Your task to perform on an android device: Open calendar and show me the second week of next month Image 0: 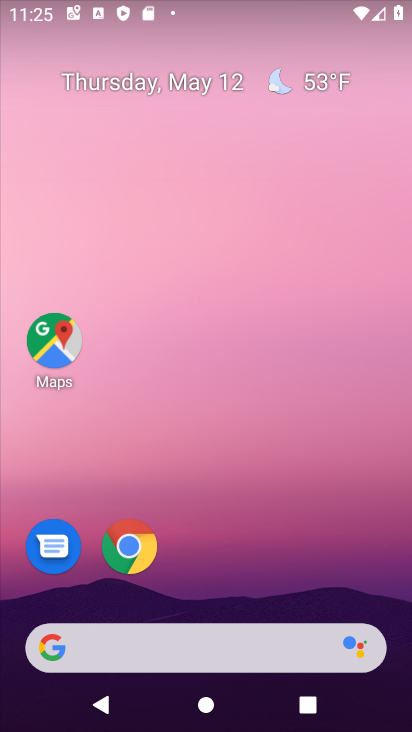
Step 0: drag from (288, 675) to (321, 165)
Your task to perform on an android device: Open calendar and show me the second week of next month Image 1: 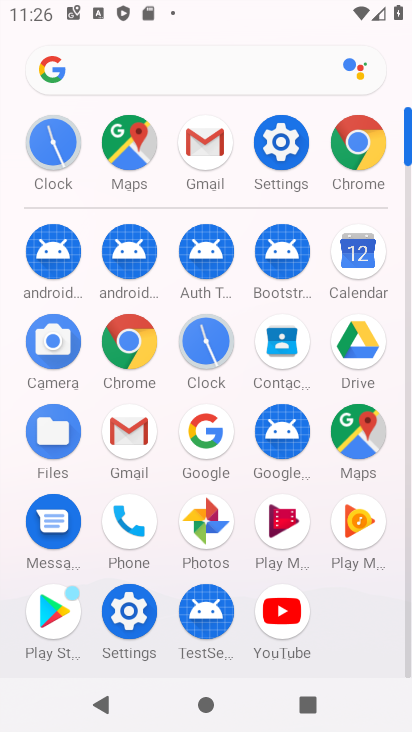
Step 1: click (352, 269)
Your task to perform on an android device: Open calendar and show me the second week of next month Image 2: 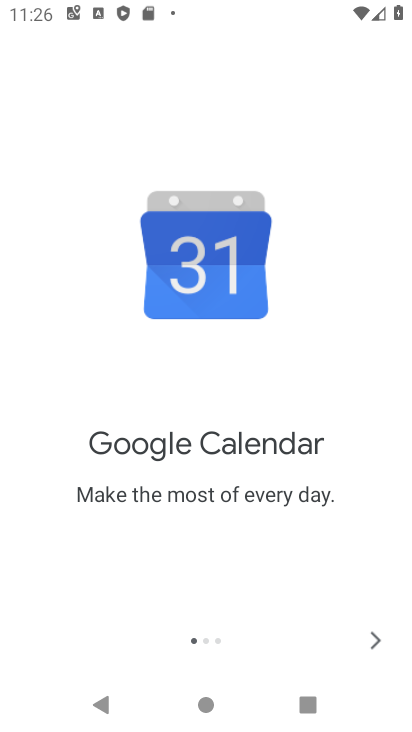
Step 2: click (362, 640)
Your task to perform on an android device: Open calendar and show me the second week of next month Image 3: 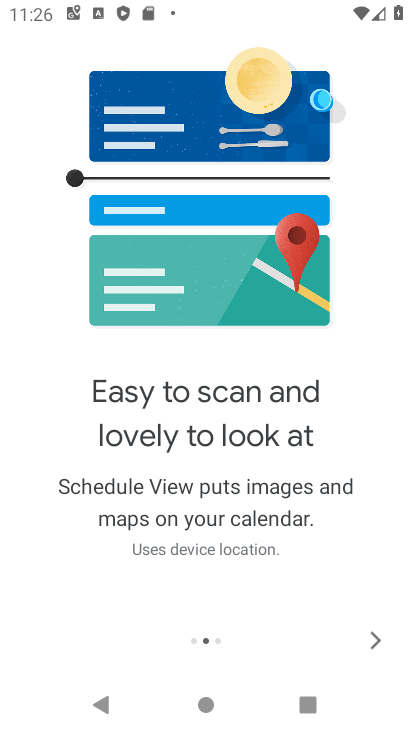
Step 3: click (362, 641)
Your task to perform on an android device: Open calendar and show me the second week of next month Image 4: 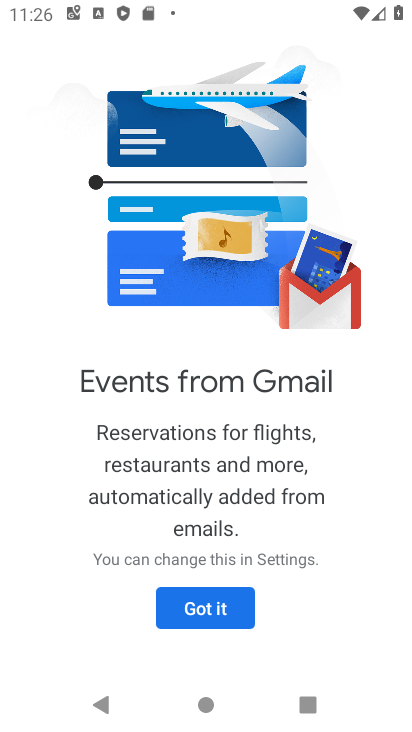
Step 4: click (197, 603)
Your task to perform on an android device: Open calendar and show me the second week of next month Image 5: 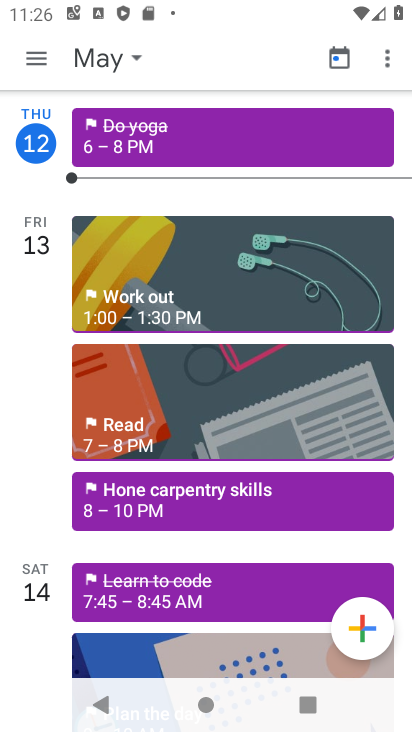
Step 5: click (46, 41)
Your task to perform on an android device: Open calendar and show me the second week of next month Image 6: 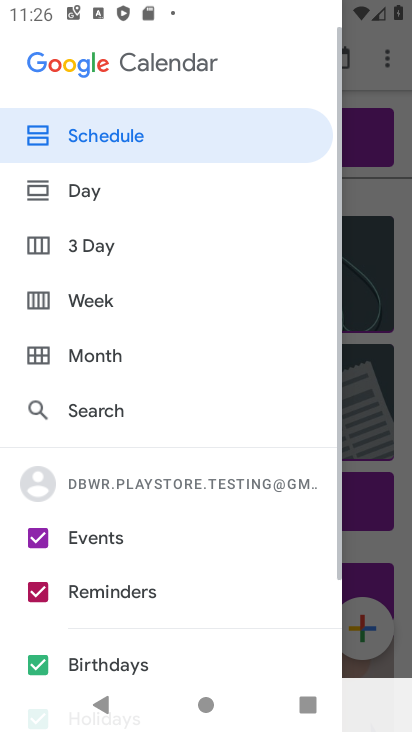
Step 6: click (116, 362)
Your task to perform on an android device: Open calendar and show me the second week of next month Image 7: 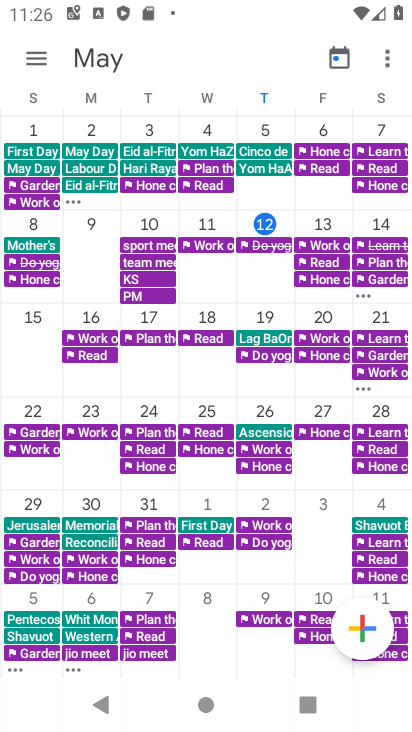
Step 7: drag from (381, 463) to (0, 350)
Your task to perform on an android device: Open calendar and show me the second week of next month Image 8: 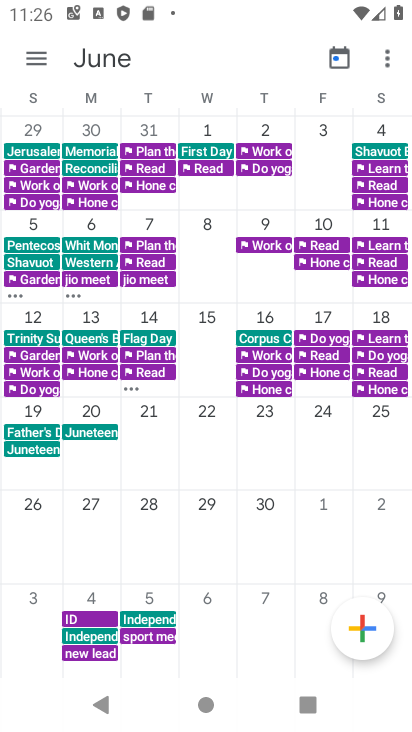
Step 8: click (83, 230)
Your task to perform on an android device: Open calendar and show me the second week of next month Image 9: 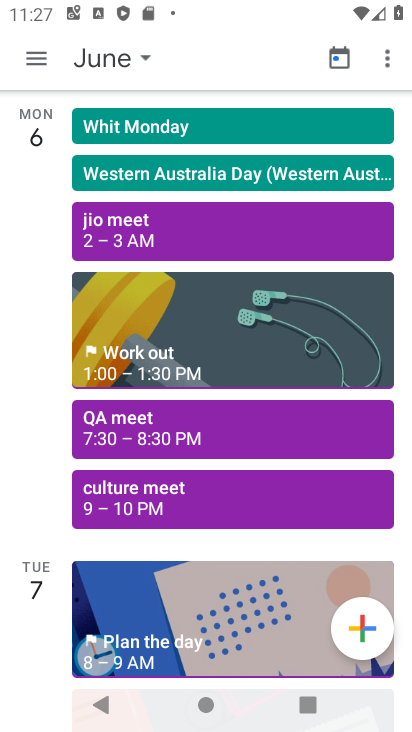
Step 9: task complete